Your task to perform on an android device: Open eBay Image 0: 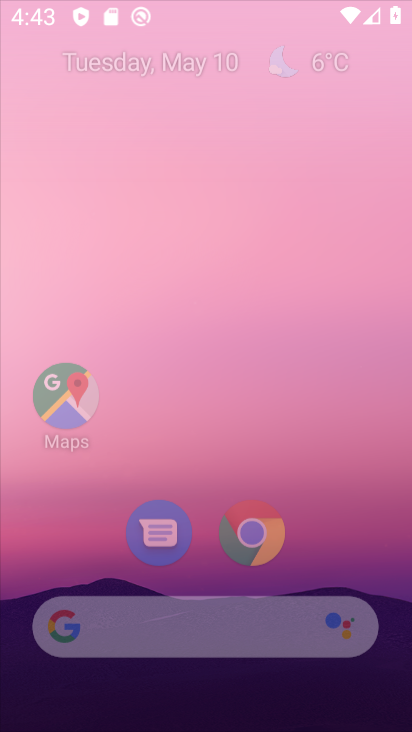
Step 0: drag from (115, 621) to (200, 205)
Your task to perform on an android device: Open eBay Image 1: 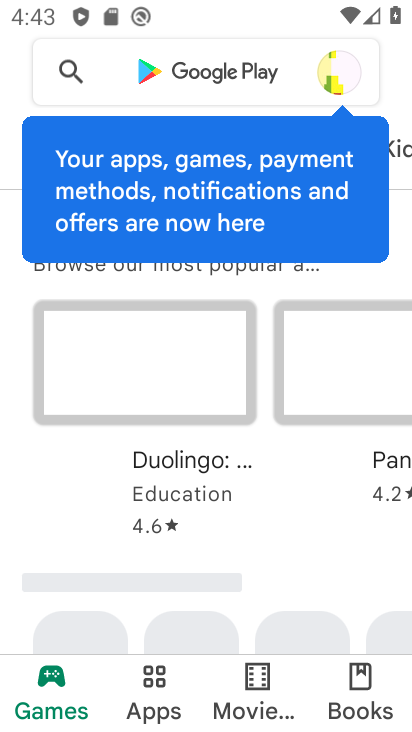
Step 1: press home button
Your task to perform on an android device: Open eBay Image 2: 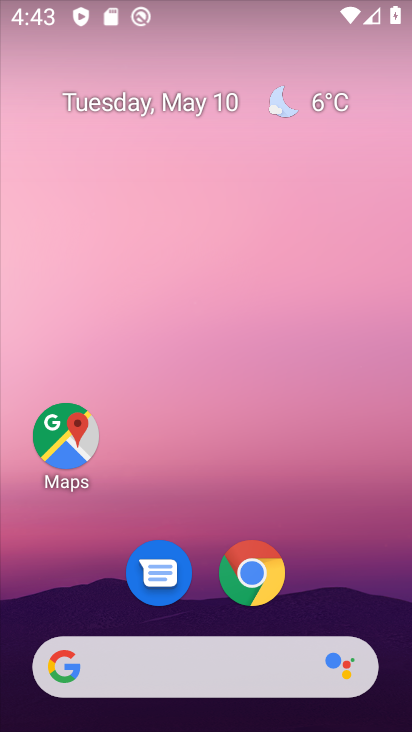
Step 2: click (258, 572)
Your task to perform on an android device: Open eBay Image 3: 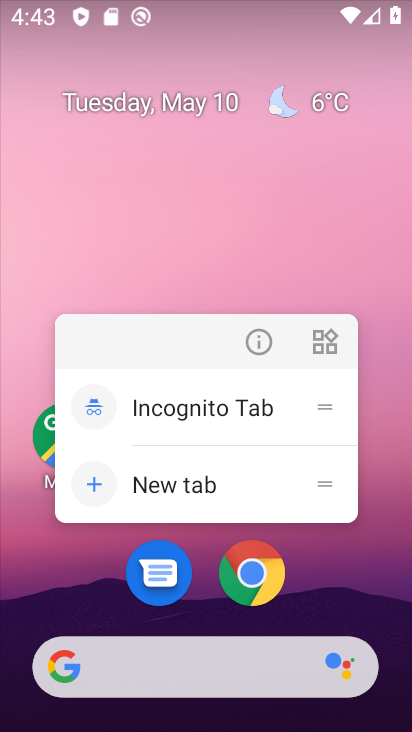
Step 3: click (255, 584)
Your task to perform on an android device: Open eBay Image 4: 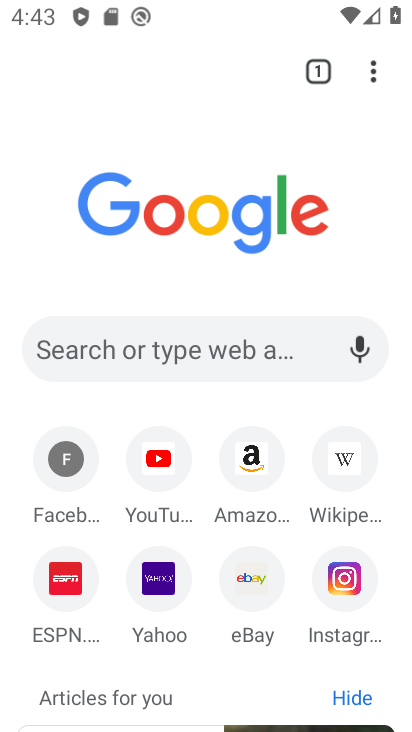
Step 4: click (255, 584)
Your task to perform on an android device: Open eBay Image 5: 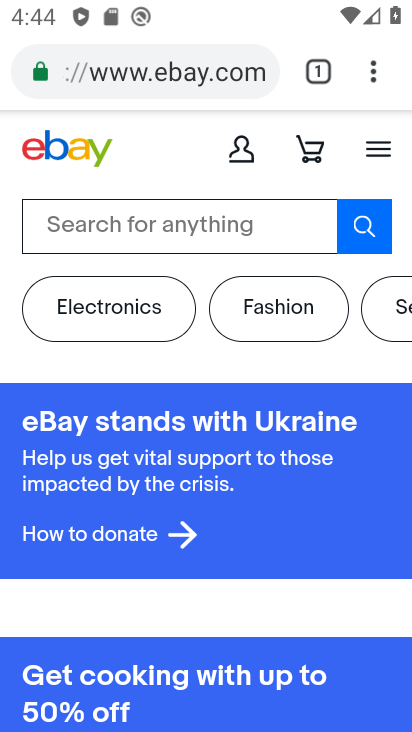
Step 5: task complete